Your task to perform on an android device: Go to network settings Image 0: 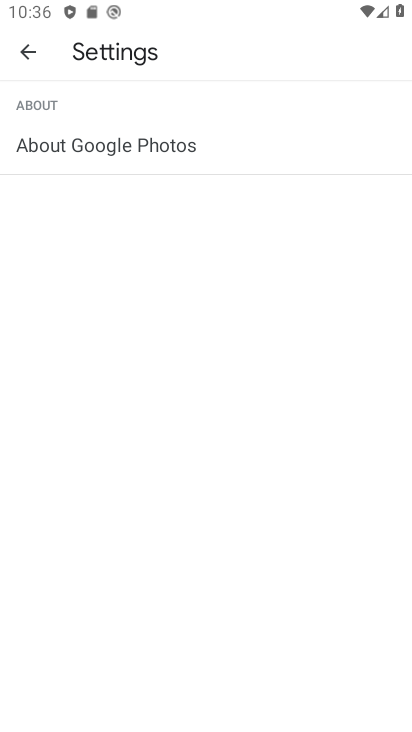
Step 0: press home button
Your task to perform on an android device: Go to network settings Image 1: 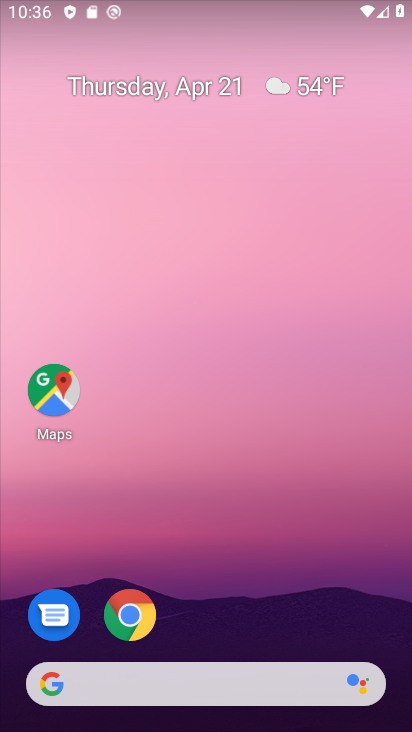
Step 1: drag from (196, 635) to (275, 51)
Your task to perform on an android device: Go to network settings Image 2: 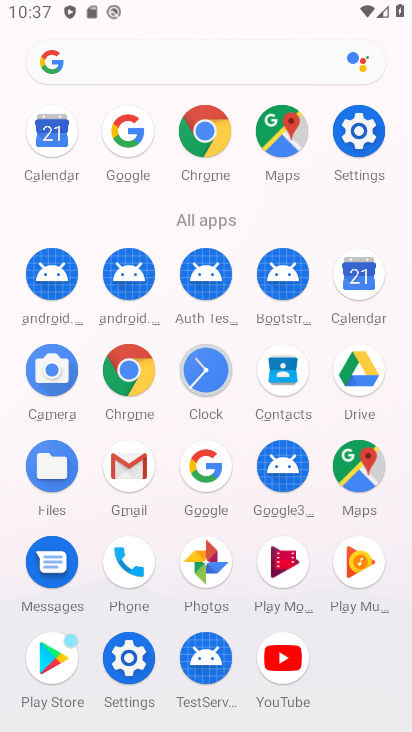
Step 2: click (362, 126)
Your task to perform on an android device: Go to network settings Image 3: 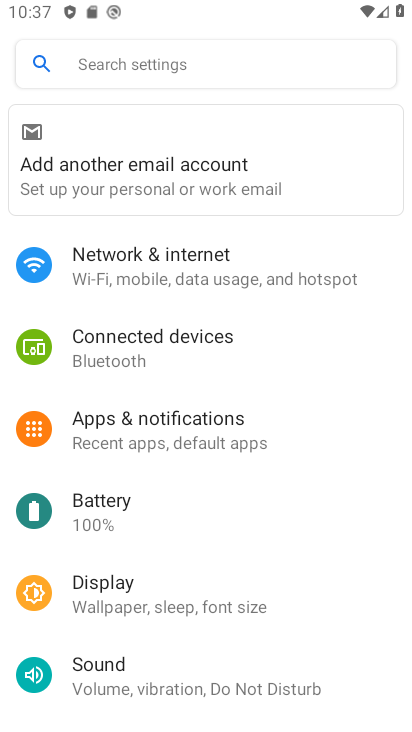
Step 3: click (221, 280)
Your task to perform on an android device: Go to network settings Image 4: 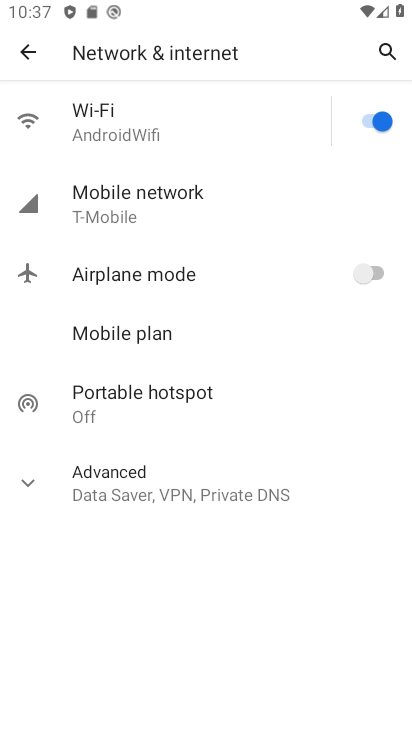
Step 4: click (204, 205)
Your task to perform on an android device: Go to network settings Image 5: 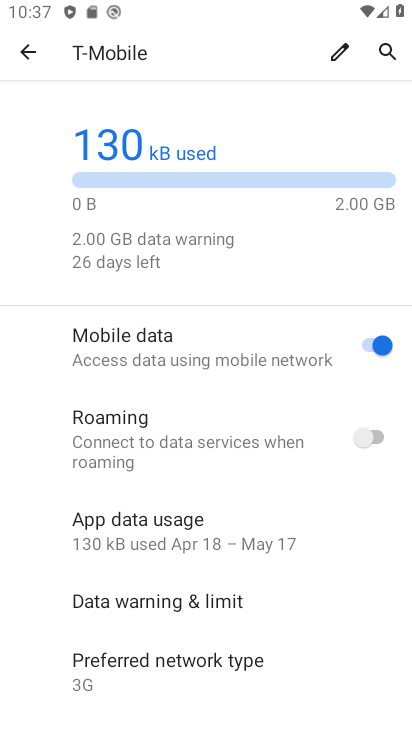
Step 5: task complete